Your task to perform on an android device: clear all cookies in the chrome app Image 0: 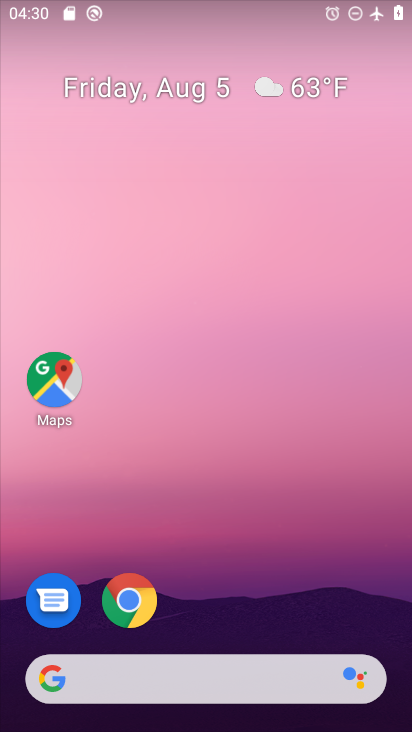
Step 0: click (129, 598)
Your task to perform on an android device: clear all cookies in the chrome app Image 1: 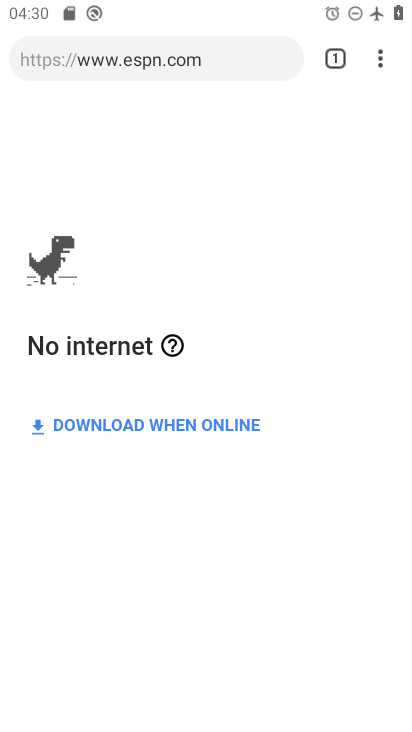
Step 1: click (379, 59)
Your task to perform on an android device: clear all cookies in the chrome app Image 2: 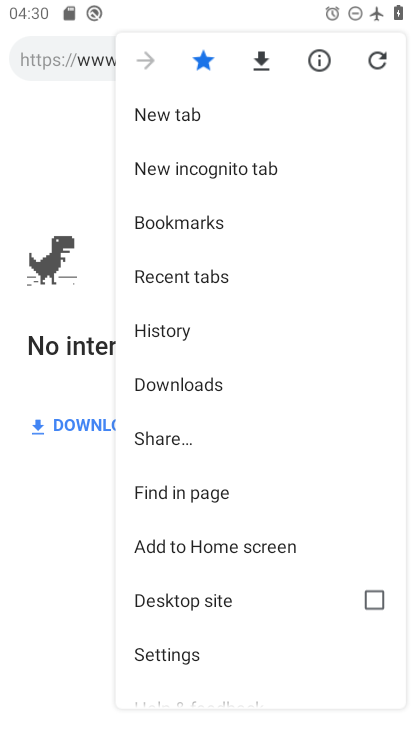
Step 2: click (164, 657)
Your task to perform on an android device: clear all cookies in the chrome app Image 3: 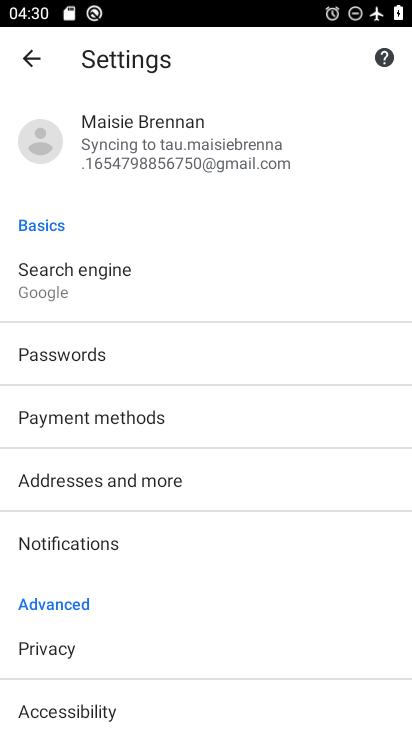
Step 3: click (42, 647)
Your task to perform on an android device: clear all cookies in the chrome app Image 4: 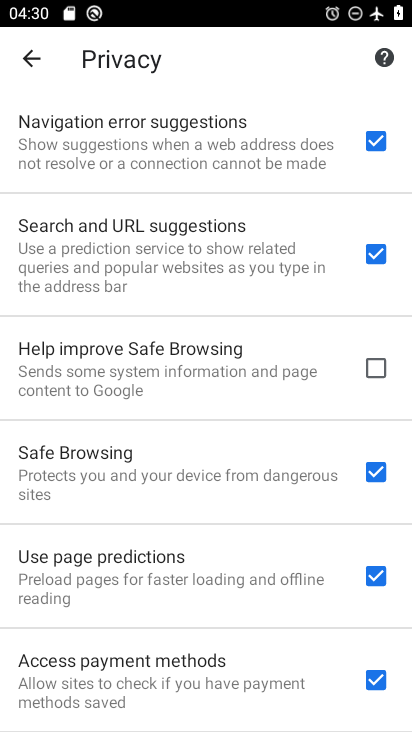
Step 4: drag from (142, 594) to (209, 351)
Your task to perform on an android device: clear all cookies in the chrome app Image 5: 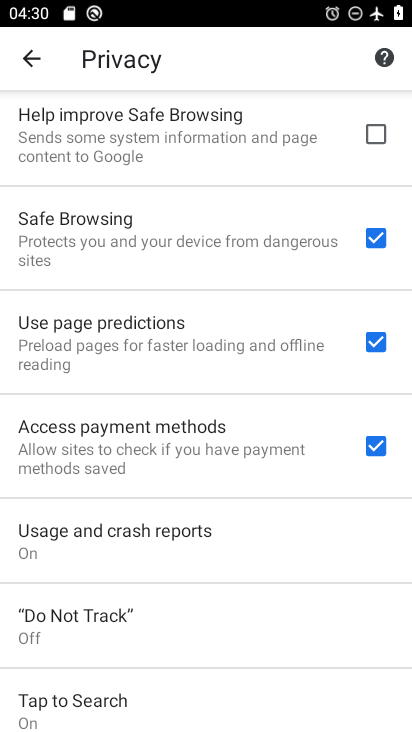
Step 5: drag from (146, 625) to (199, 460)
Your task to perform on an android device: clear all cookies in the chrome app Image 6: 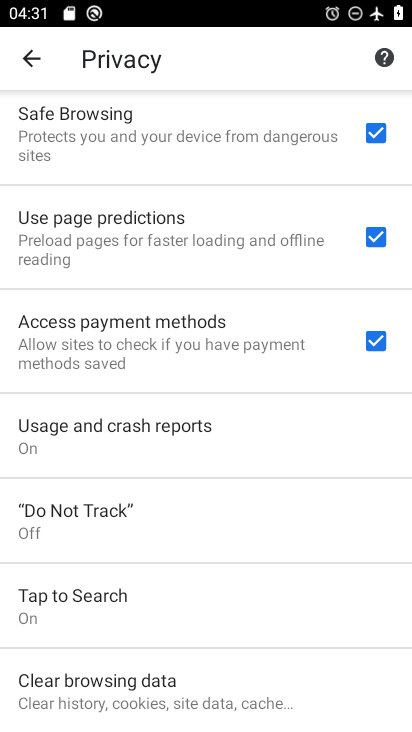
Step 6: click (160, 700)
Your task to perform on an android device: clear all cookies in the chrome app Image 7: 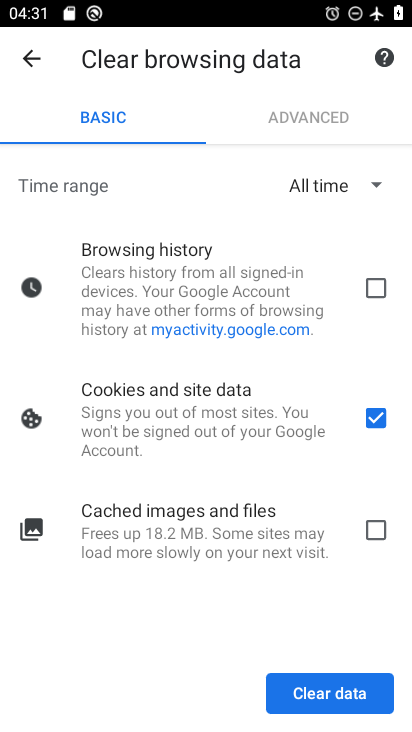
Step 7: click (332, 687)
Your task to perform on an android device: clear all cookies in the chrome app Image 8: 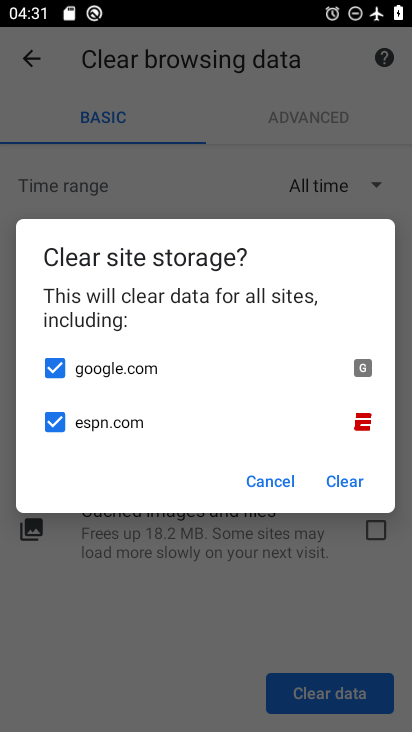
Step 8: click (331, 475)
Your task to perform on an android device: clear all cookies in the chrome app Image 9: 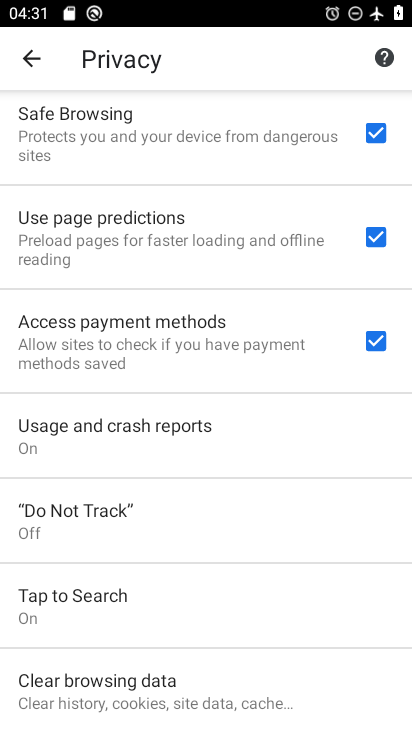
Step 9: task complete